Your task to perform on an android device: open a new tab in the chrome app Image 0: 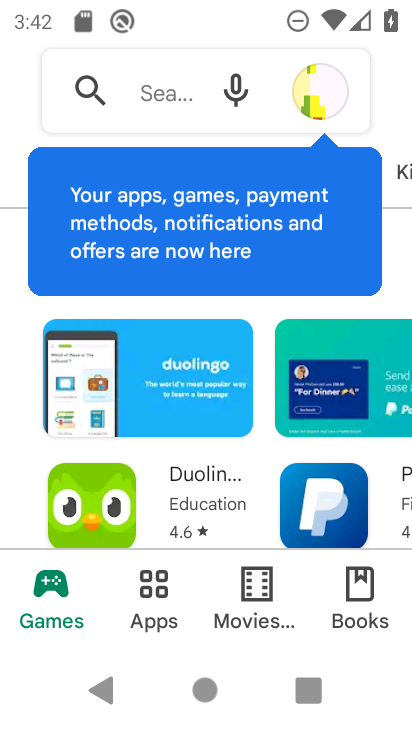
Step 0: press home button
Your task to perform on an android device: open a new tab in the chrome app Image 1: 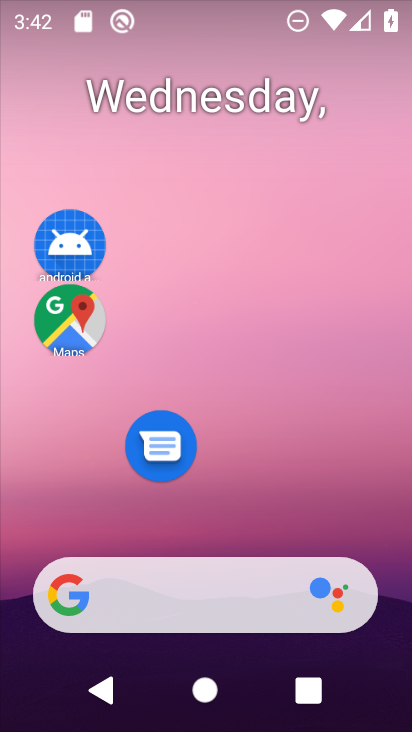
Step 1: drag from (261, 523) to (282, 19)
Your task to perform on an android device: open a new tab in the chrome app Image 2: 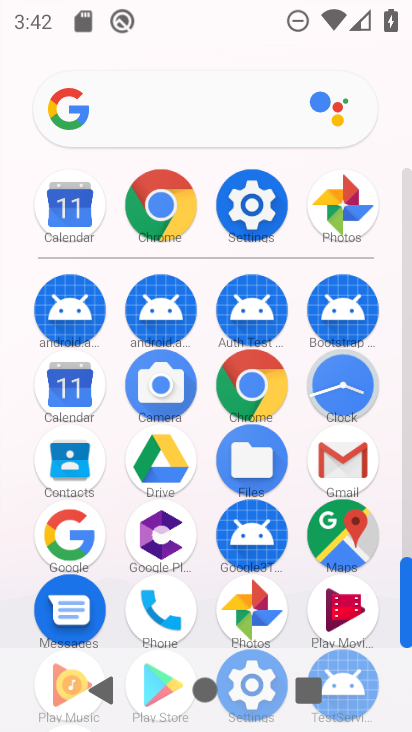
Step 2: click (158, 192)
Your task to perform on an android device: open a new tab in the chrome app Image 3: 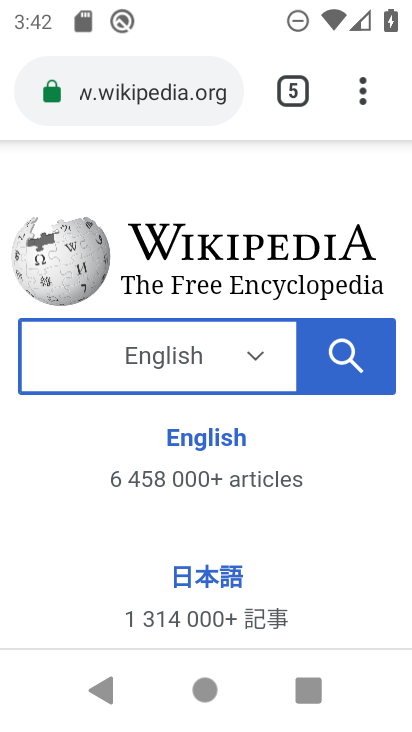
Step 3: click (366, 96)
Your task to perform on an android device: open a new tab in the chrome app Image 4: 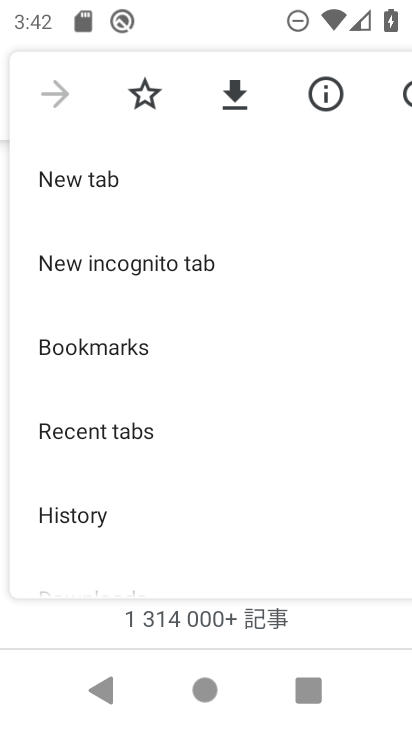
Step 4: click (45, 194)
Your task to perform on an android device: open a new tab in the chrome app Image 5: 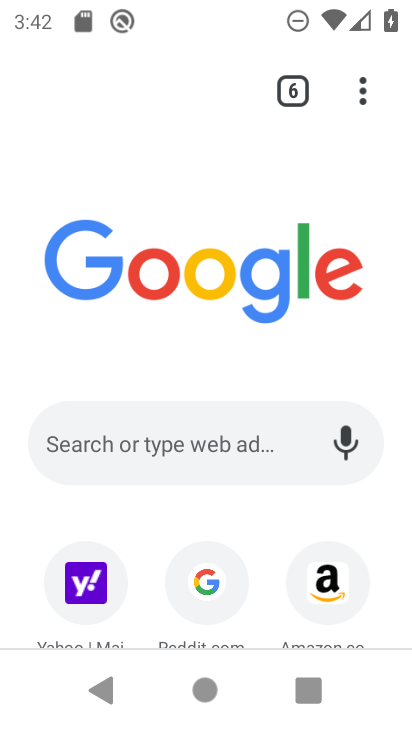
Step 5: task complete